Your task to perform on an android device: Open Maps and search for coffee Image 0: 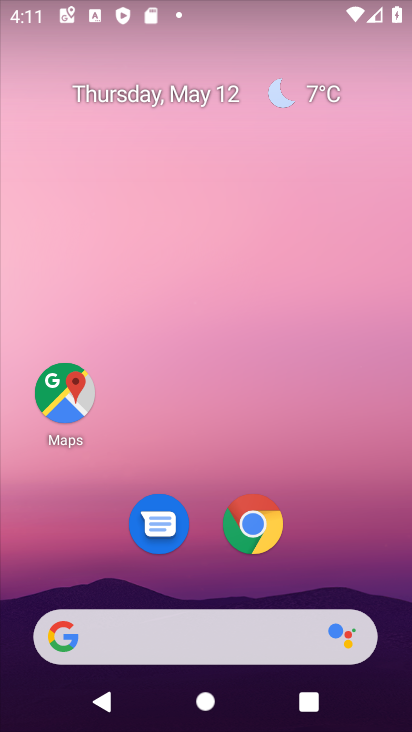
Step 0: click (54, 393)
Your task to perform on an android device: Open Maps and search for coffee Image 1: 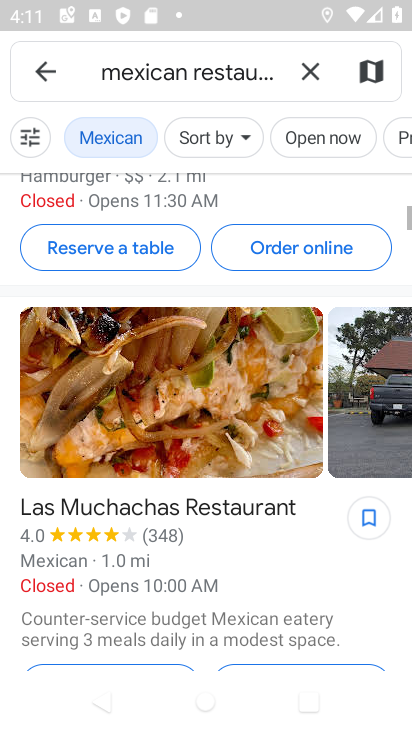
Step 1: click (313, 62)
Your task to perform on an android device: Open Maps and search for coffee Image 2: 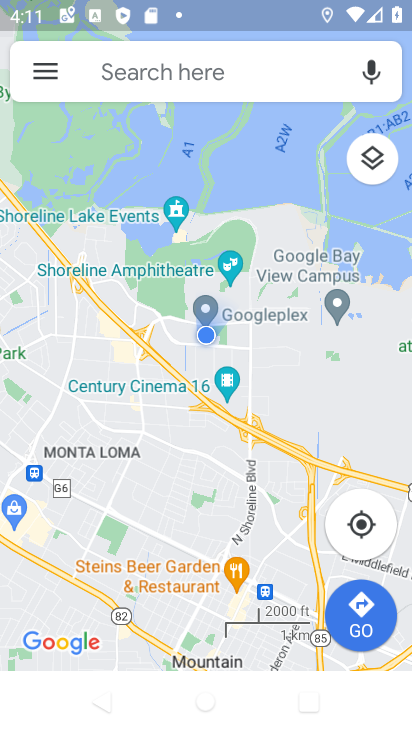
Step 2: click (231, 70)
Your task to perform on an android device: Open Maps and search for coffee Image 3: 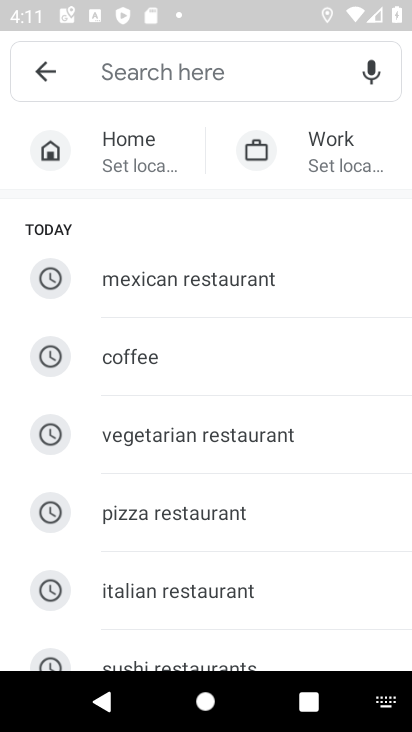
Step 3: click (134, 347)
Your task to perform on an android device: Open Maps and search for coffee Image 4: 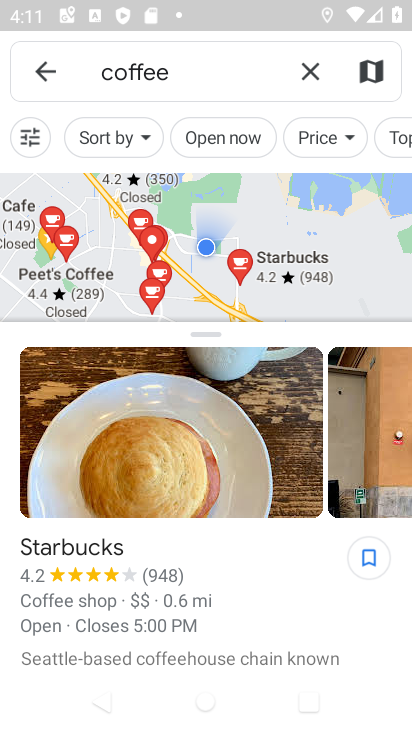
Step 4: task complete